Your task to perform on an android device: turn on notifications settings in the gmail app Image 0: 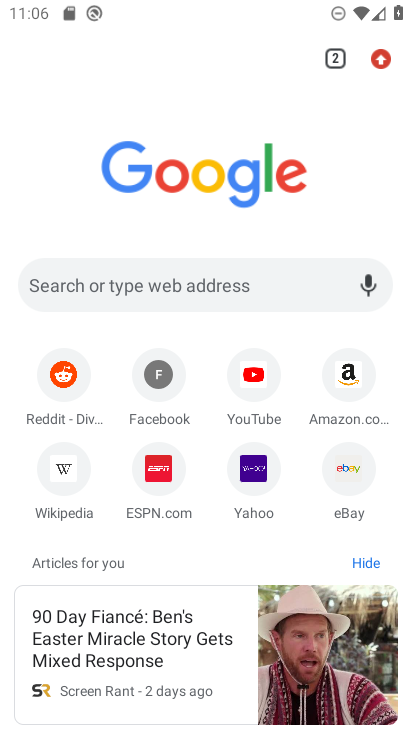
Step 0: press home button
Your task to perform on an android device: turn on notifications settings in the gmail app Image 1: 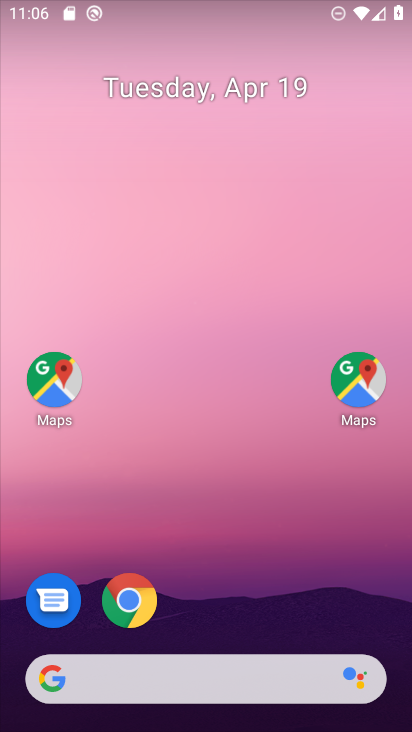
Step 1: drag from (341, 663) to (346, 94)
Your task to perform on an android device: turn on notifications settings in the gmail app Image 2: 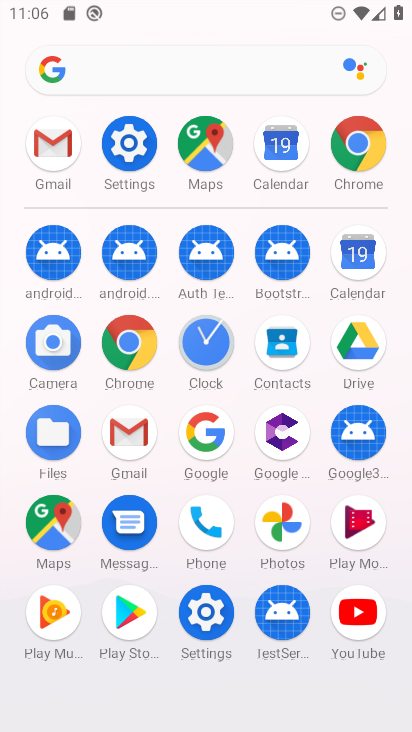
Step 2: click (129, 432)
Your task to perform on an android device: turn on notifications settings in the gmail app Image 3: 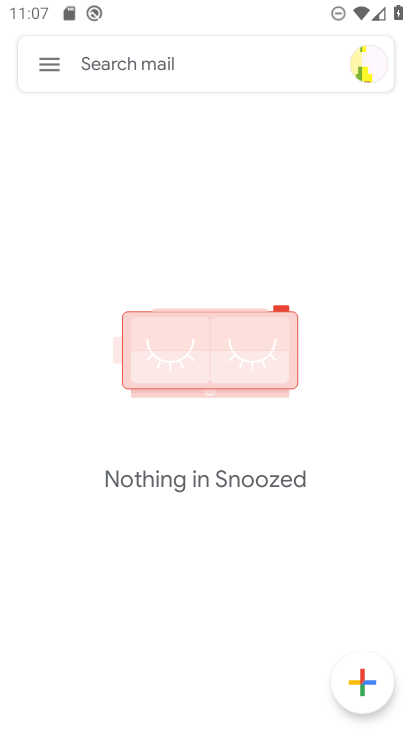
Step 3: click (58, 67)
Your task to perform on an android device: turn on notifications settings in the gmail app Image 4: 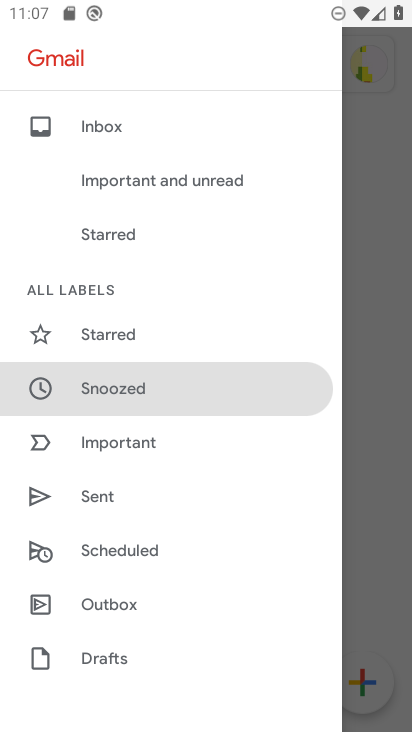
Step 4: drag from (289, 665) to (278, 343)
Your task to perform on an android device: turn on notifications settings in the gmail app Image 5: 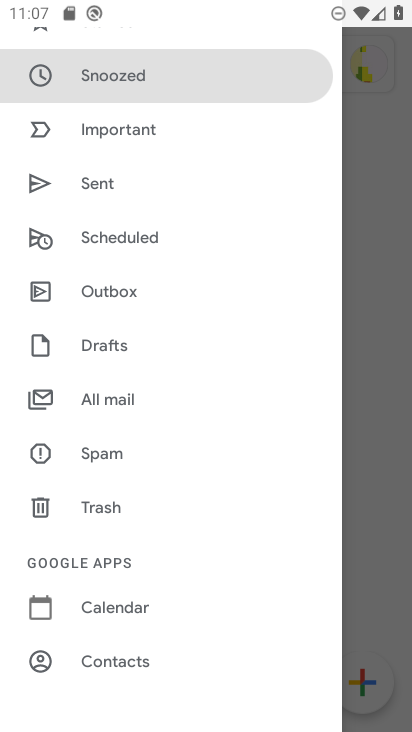
Step 5: drag from (144, 674) to (225, 109)
Your task to perform on an android device: turn on notifications settings in the gmail app Image 6: 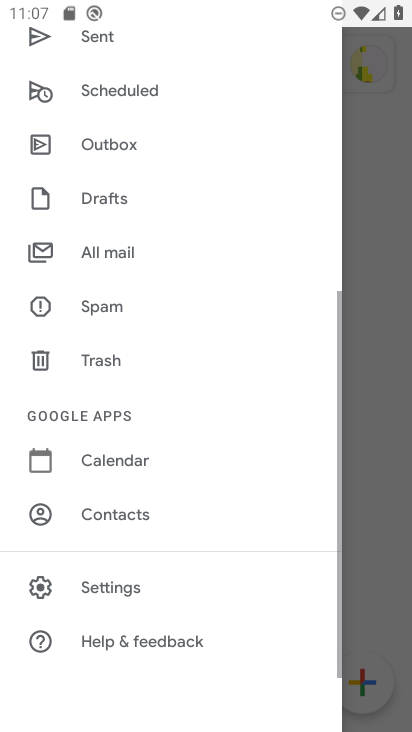
Step 6: click (133, 589)
Your task to perform on an android device: turn on notifications settings in the gmail app Image 7: 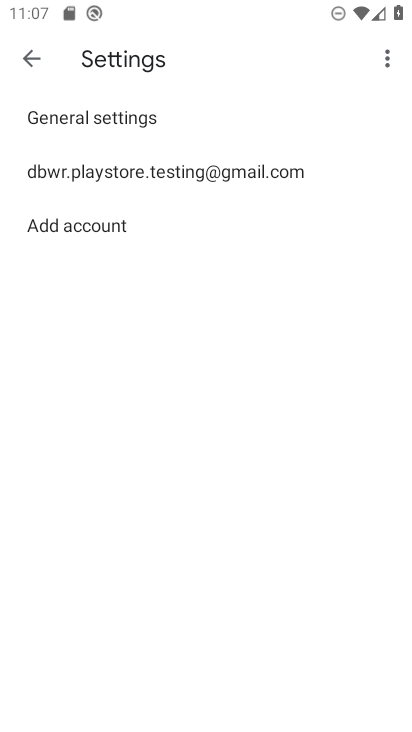
Step 7: click (184, 169)
Your task to perform on an android device: turn on notifications settings in the gmail app Image 8: 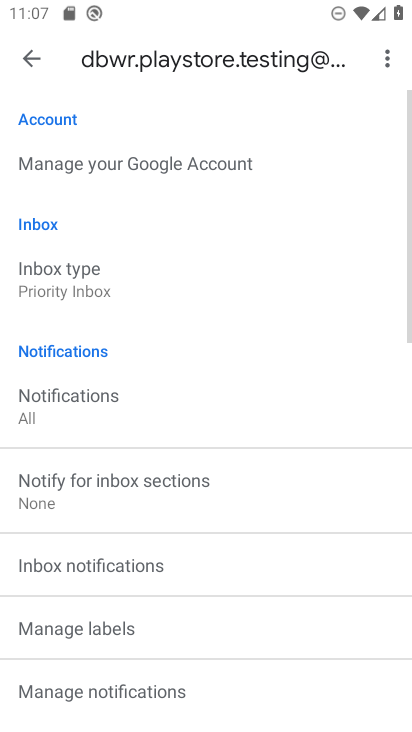
Step 8: drag from (156, 673) to (169, 236)
Your task to perform on an android device: turn on notifications settings in the gmail app Image 9: 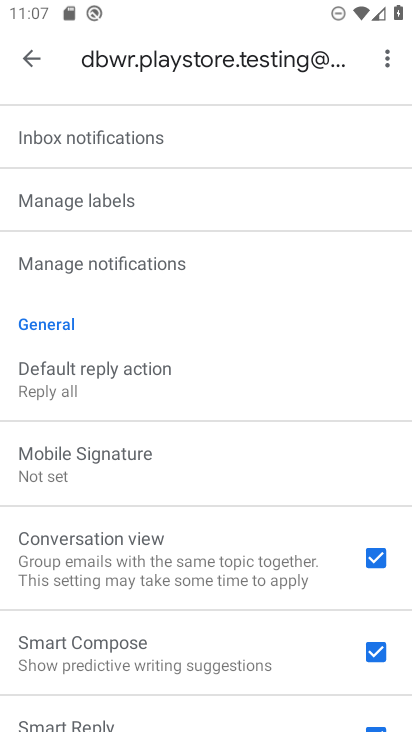
Step 9: click (189, 264)
Your task to perform on an android device: turn on notifications settings in the gmail app Image 10: 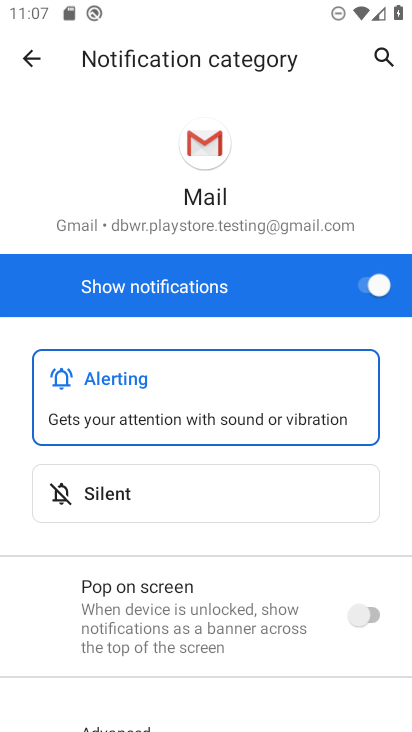
Step 10: task complete